Your task to perform on an android device: change the clock display to digital Image 0: 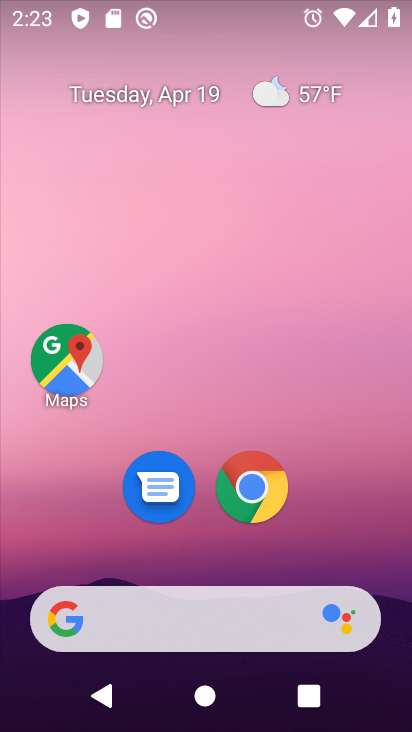
Step 0: drag from (209, 416) to (155, 39)
Your task to perform on an android device: change the clock display to digital Image 1: 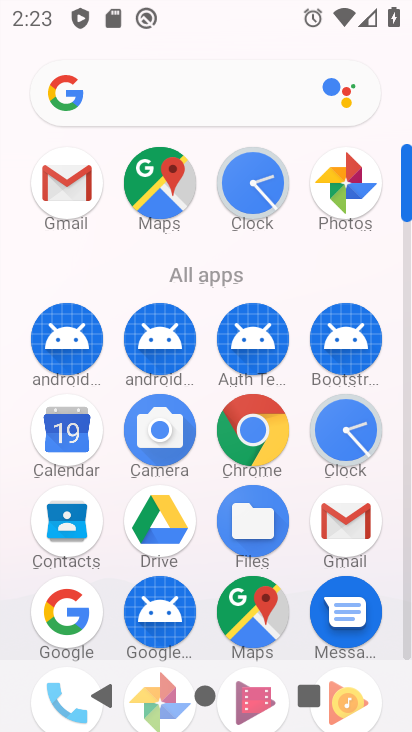
Step 1: click (258, 186)
Your task to perform on an android device: change the clock display to digital Image 2: 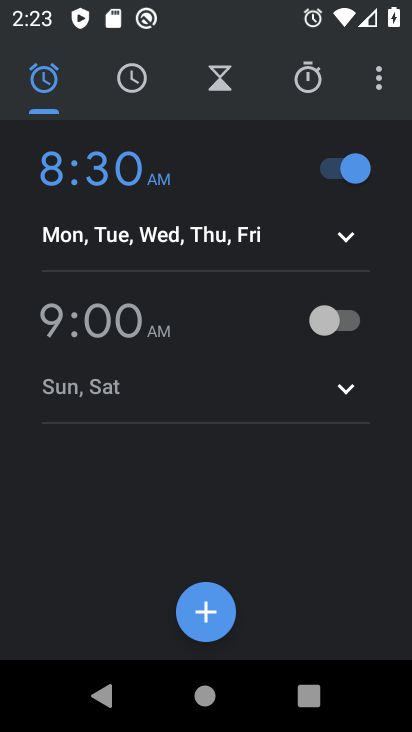
Step 2: click (387, 78)
Your task to perform on an android device: change the clock display to digital Image 3: 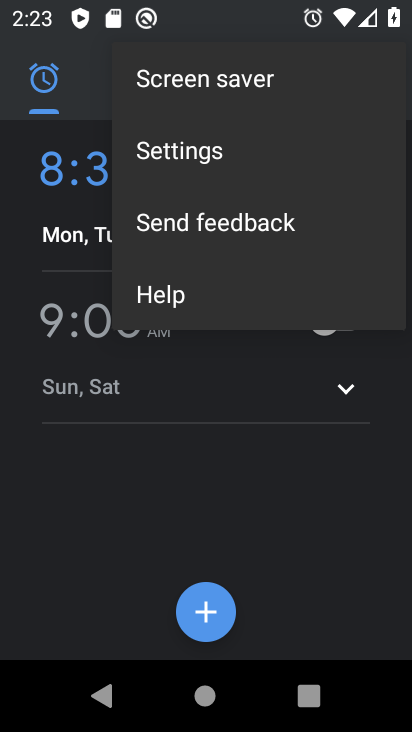
Step 3: click (237, 129)
Your task to perform on an android device: change the clock display to digital Image 4: 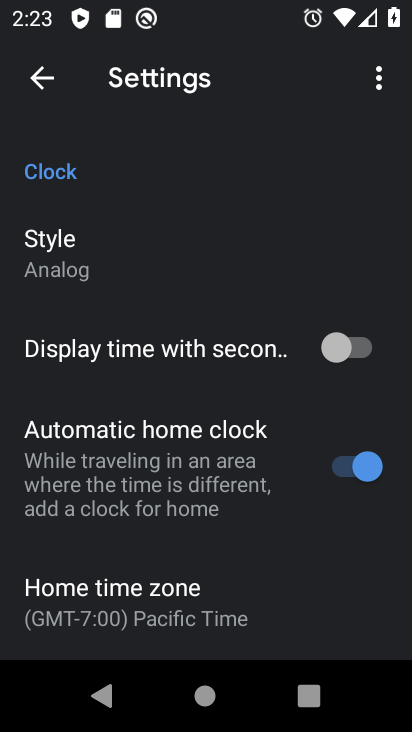
Step 4: click (140, 287)
Your task to perform on an android device: change the clock display to digital Image 5: 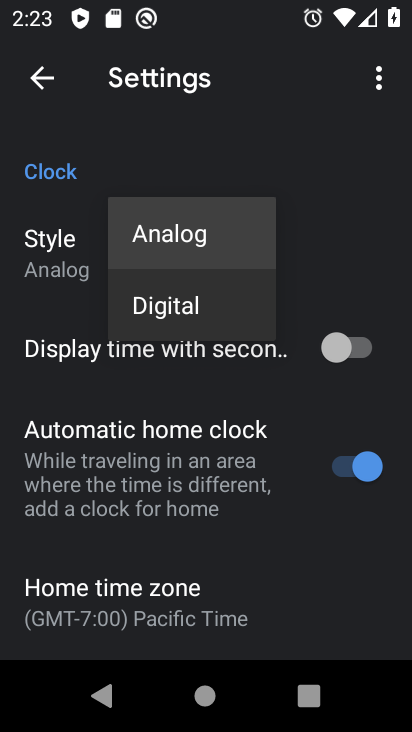
Step 5: click (140, 287)
Your task to perform on an android device: change the clock display to digital Image 6: 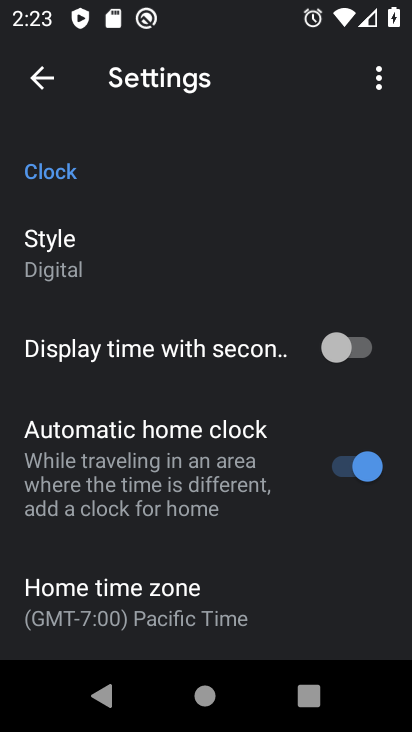
Step 6: task complete